Your task to perform on an android device: turn vacation reply on in the gmail app Image 0: 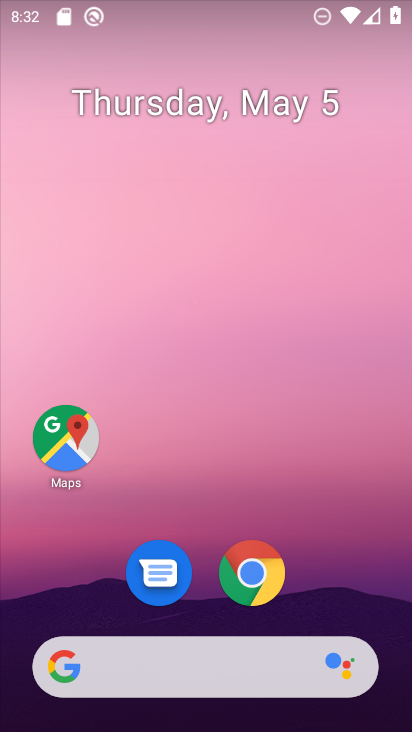
Step 0: drag from (197, 528) to (268, 41)
Your task to perform on an android device: turn vacation reply on in the gmail app Image 1: 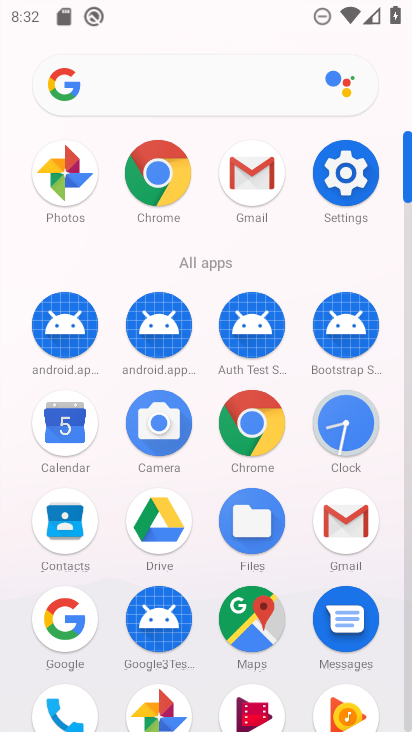
Step 1: click (245, 195)
Your task to perform on an android device: turn vacation reply on in the gmail app Image 2: 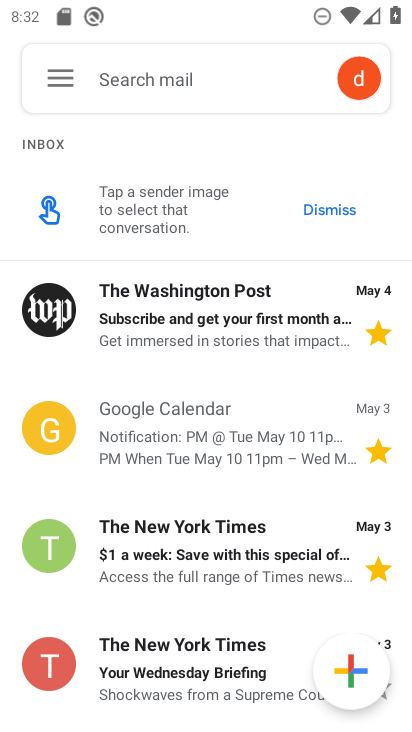
Step 2: click (70, 84)
Your task to perform on an android device: turn vacation reply on in the gmail app Image 3: 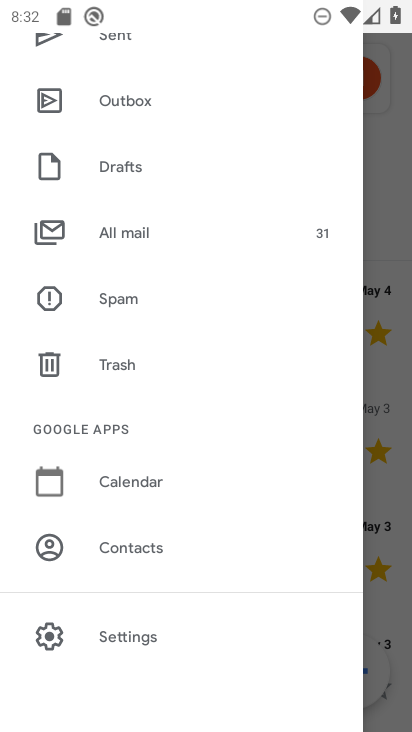
Step 3: click (125, 649)
Your task to perform on an android device: turn vacation reply on in the gmail app Image 4: 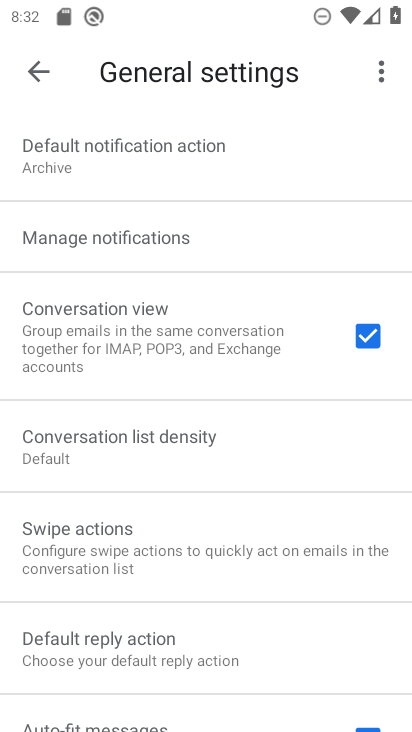
Step 4: click (36, 71)
Your task to perform on an android device: turn vacation reply on in the gmail app Image 5: 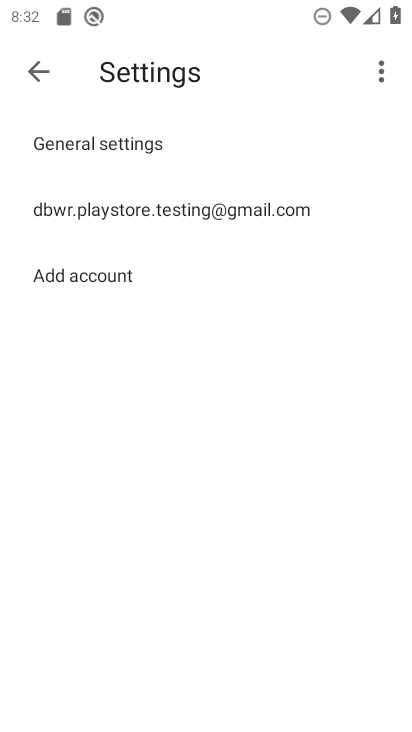
Step 5: click (77, 202)
Your task to perform on an android device: turn vacation reply on in the gmail app Image 6: 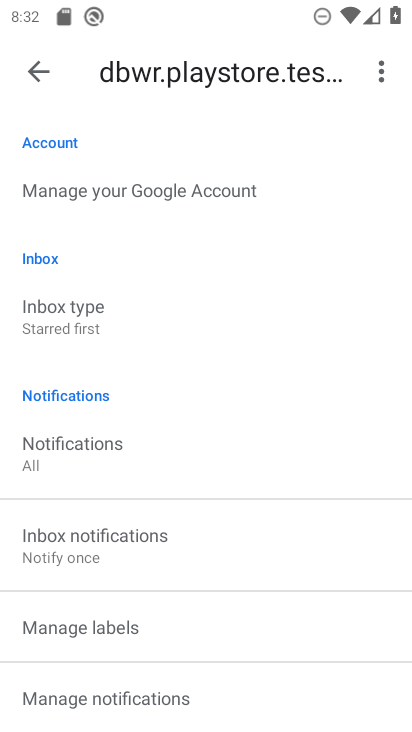
Step 6: drag from (113, 467) to (217, 85)
Your task to perform on an android device: turn vacation reply on in the gmail app Image 7: 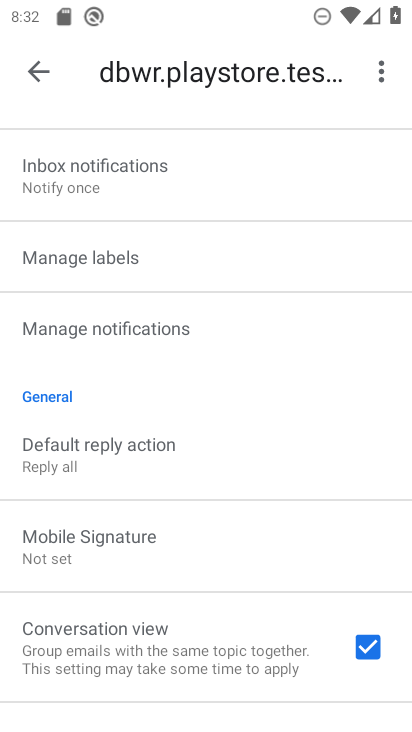
Step 7: drag from (144, 559) to (228, 190)
Your task to perform on an android device: turn vacation reply on in the gmail app Image 8: 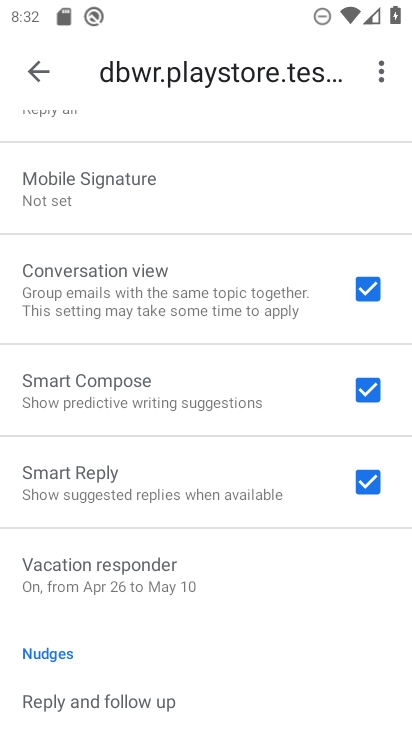
Step 8: click (116, 578)
Your task to perform on an android device: turn vacation reply on in the gmail app Image 9: 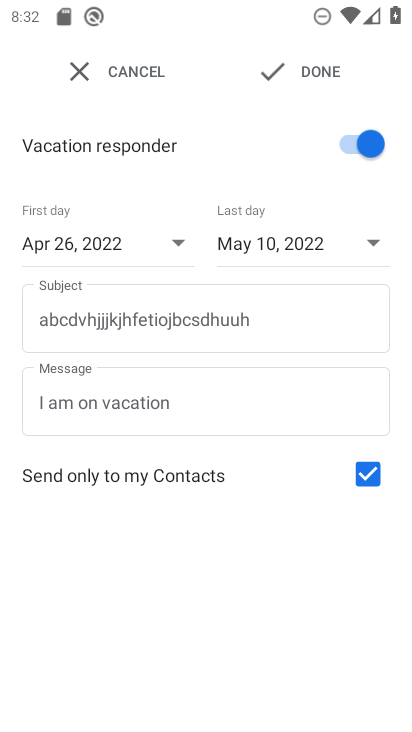
Step 9: task complete